Your task to perform on an android device: Open ESPN.com Image 0: 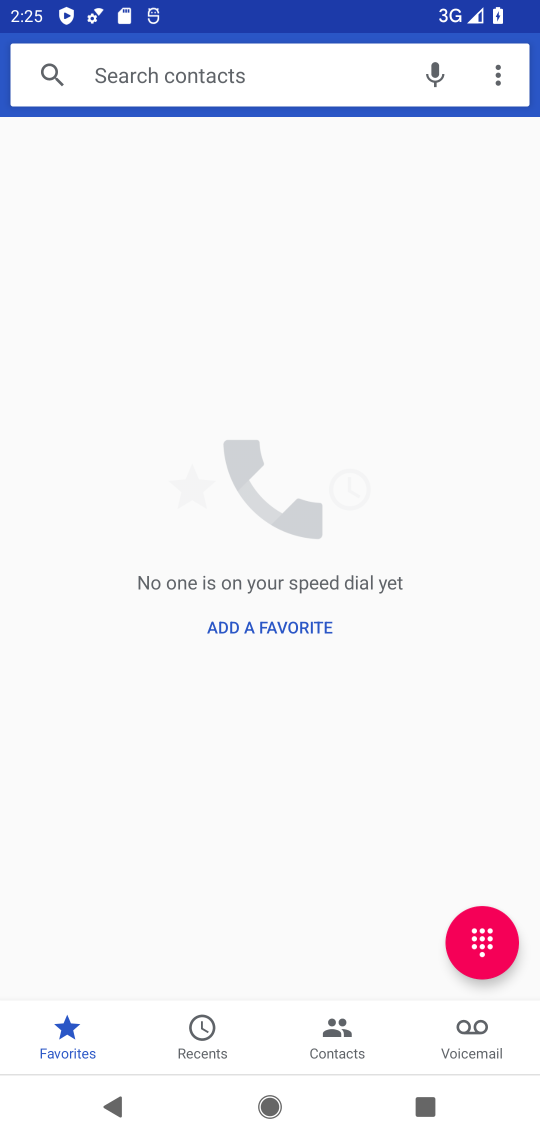
Step 0: press home button
Your task to perform on an android device: Open ESPN.com Image 1: 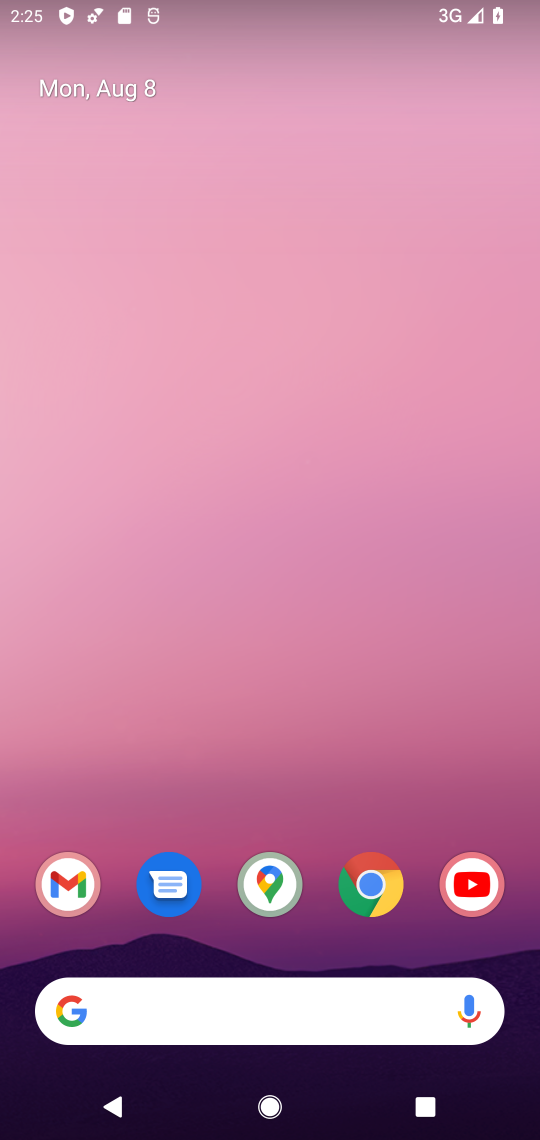
Step 1: click (374, 880)
Your task to perform on an android device: Open ESPN.com Image 2: 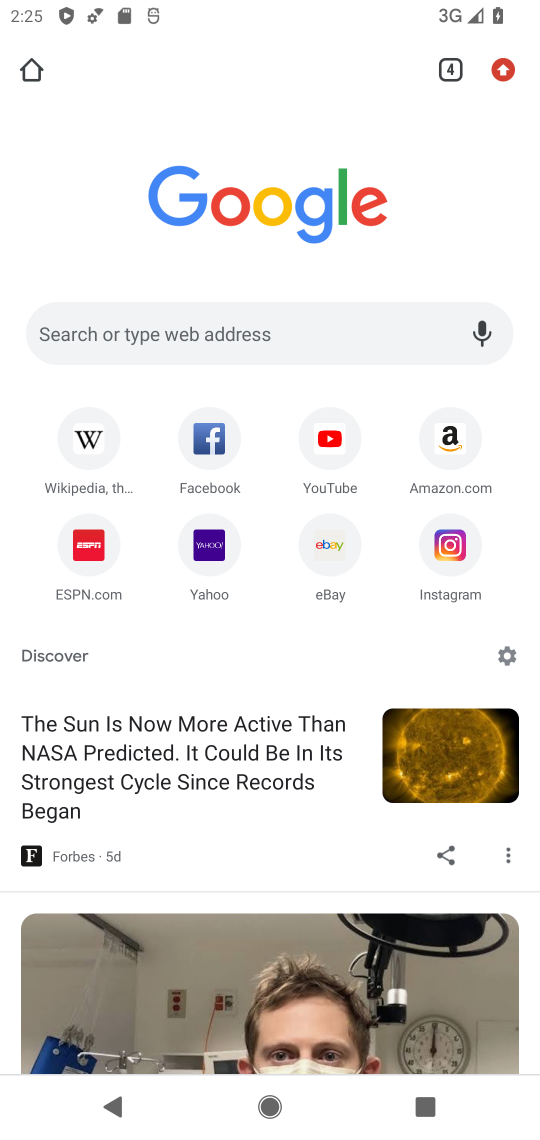
Step 2: click (84, 545)
Your task to perform on an android device: Open ESPN.com Image 3: 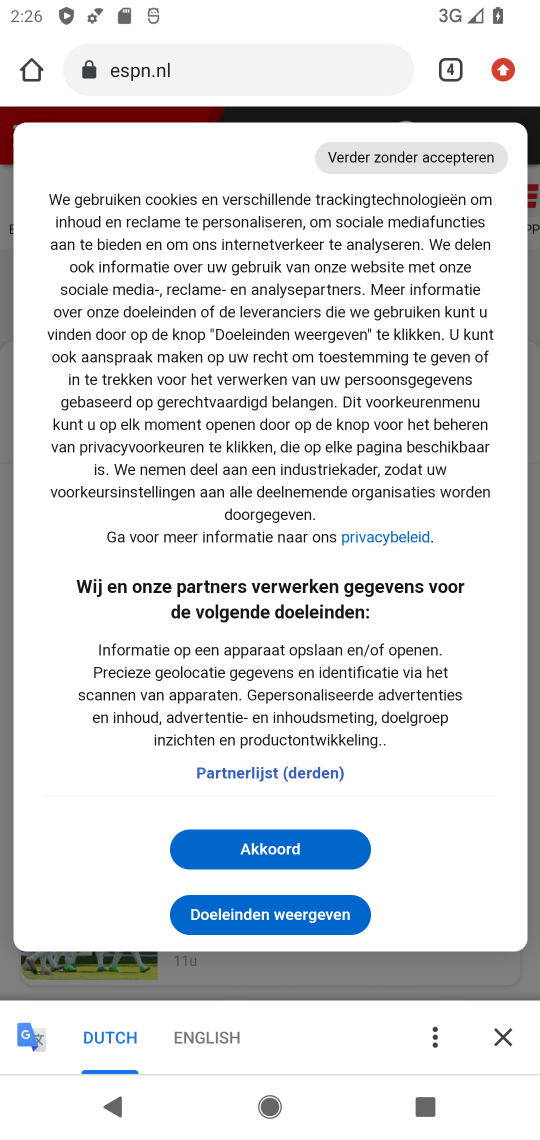
Step 3: click (272, 861)
Your task to perform on an android device: Open ESPN.com Image 4: 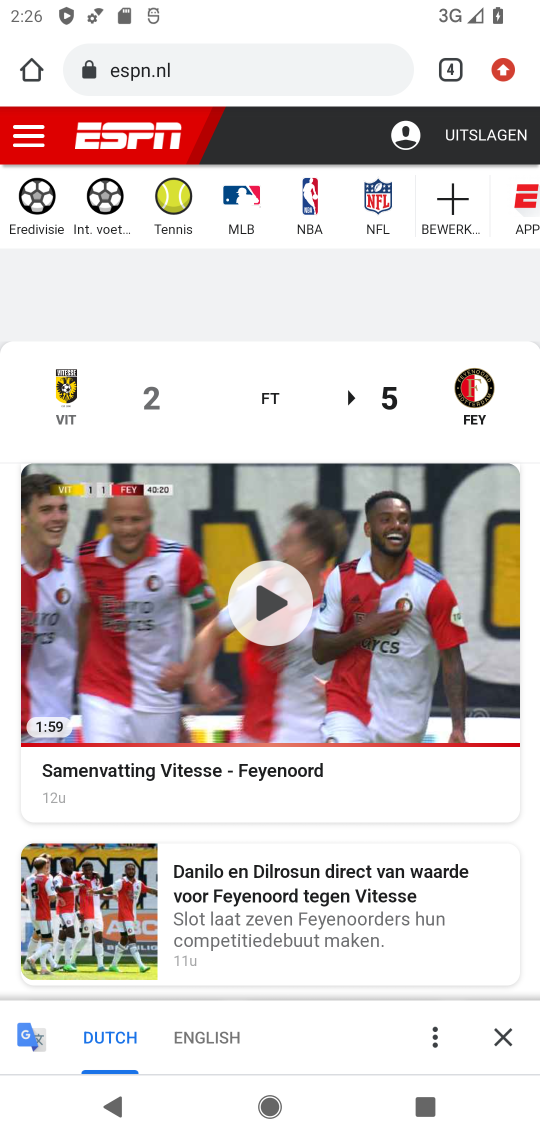
Step 4: task complete